Your task to perform on an android device: check android version Image 0: 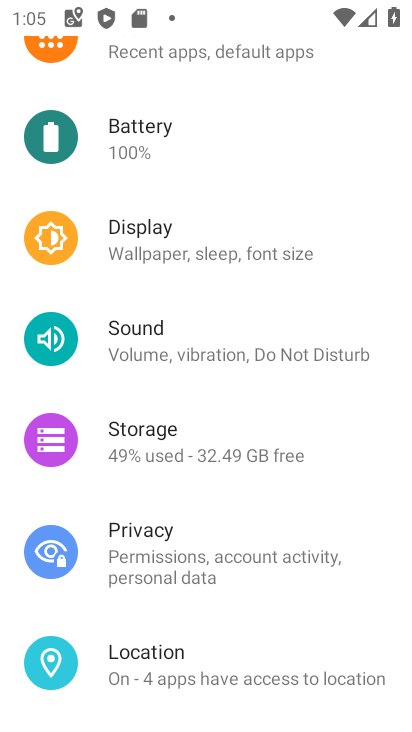
Step 0: drag from (317, 669) to (346, 271)
Your task to perform on an android device: check android version Image 1: 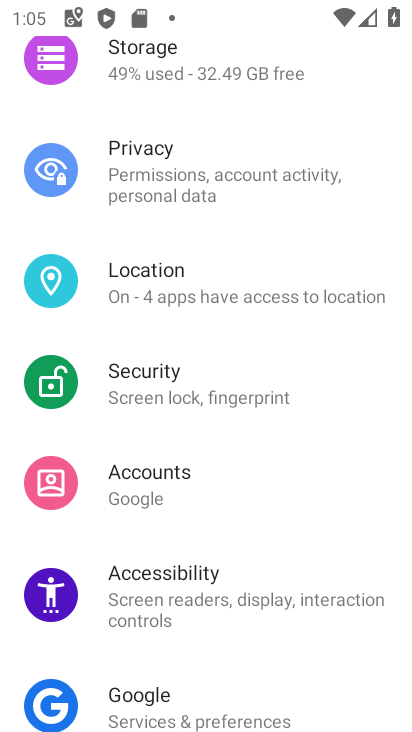
Step 1: drag from (304, 646) to (342, 185)
Your task to perform on an android device: check android version Image 2: 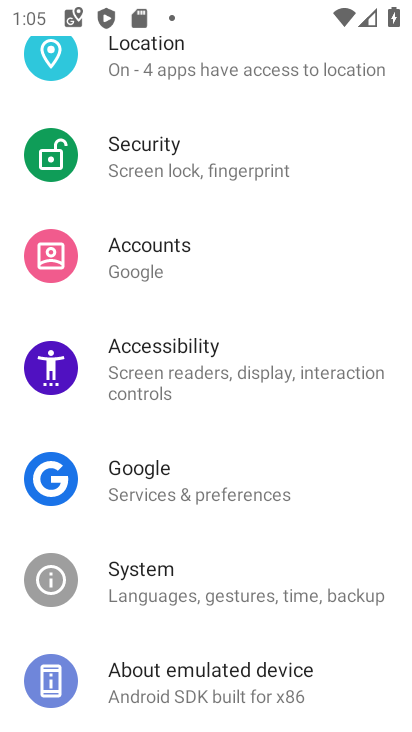
Step 2: click (272, 668)
Your task to perform on an android device: check android version Image 3: 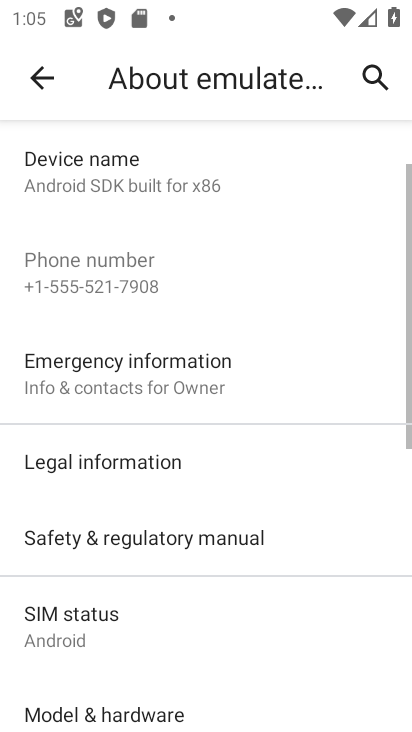
Step 3: drag from (270, 657) to (258, 350)
Your task to perform on an android device: check android version Image 4: 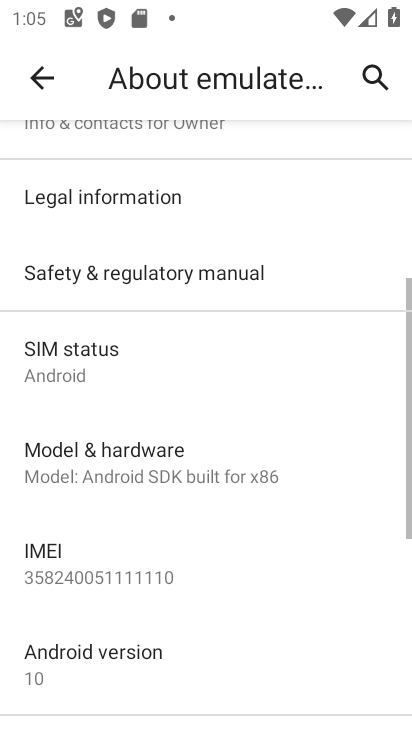
Step 4: click (210, 652)
Your task to perform on an android device: check android version Image 5: 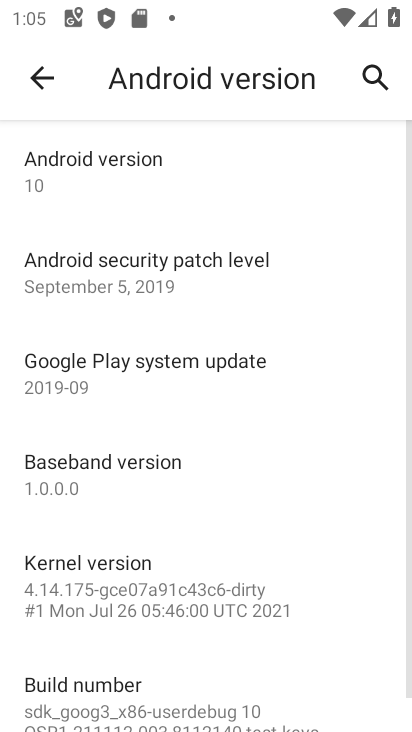
Step 5: task complete